Your task to perform on an android device: Search for seafood restaurants on Google Maps Image 0: 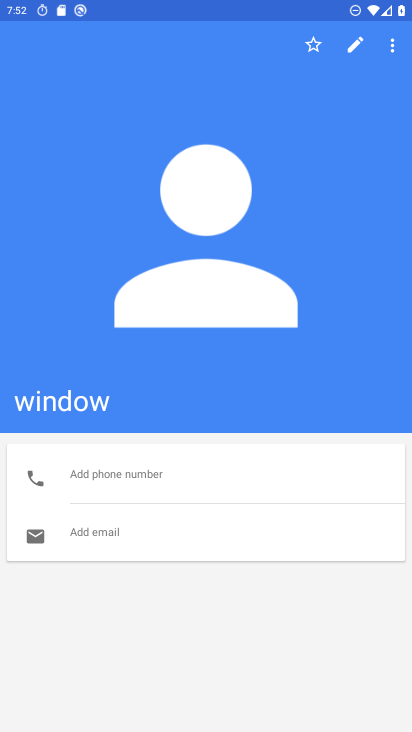
Step 0: press home button
Your task to perform on an android device: Search for seafood restaurants on Google Maps Image 1: 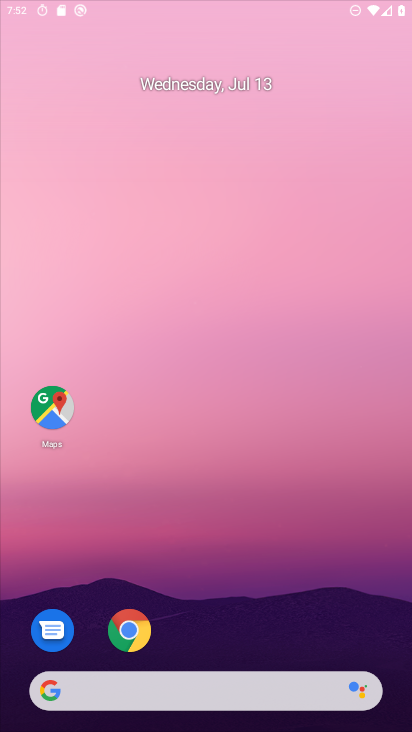
Step 1: drag from (399, 691) to (246, 5)
Your task to perform on an android device: Search for seafood restaurants on Google Maps Image 2: 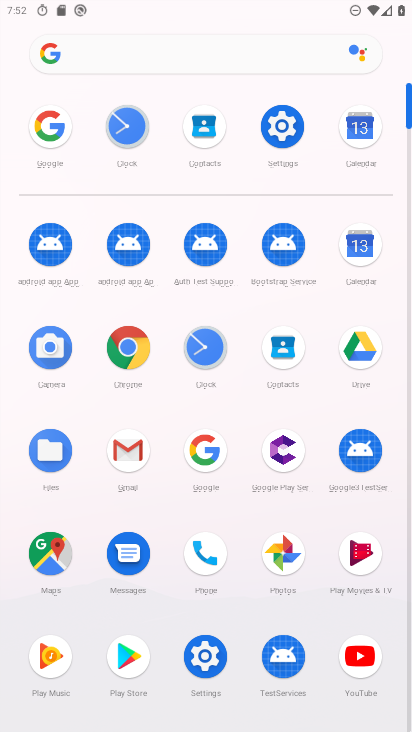
Step 2: click (39, 553)
Your task to perform on an android device: Search for seafood restaurants on Google Maps Image 3: 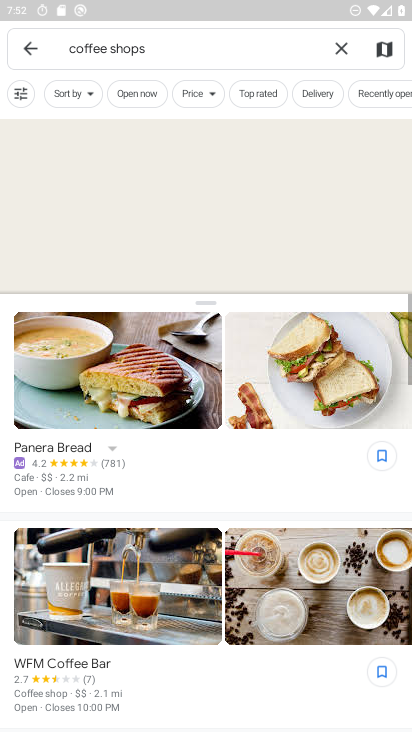
Step 3: click (347, 51)
Your task to perform on an android device: Search for seafood restaurants on Google Maps Image 4: 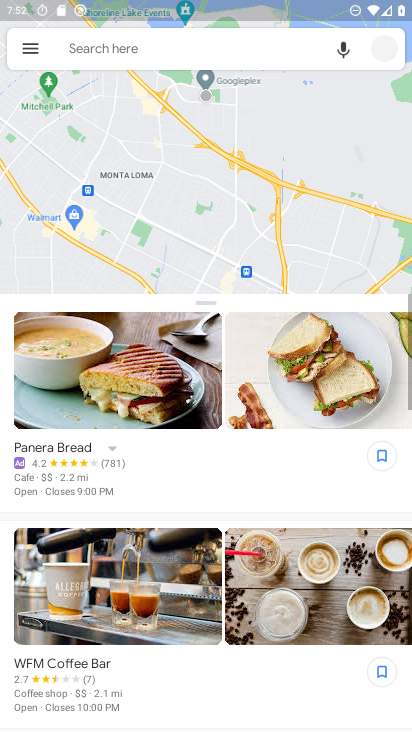
Step 4: click (170, 48)
Your task to perform on an android device: Search for seafood restaurants on Google Maps Image 5: 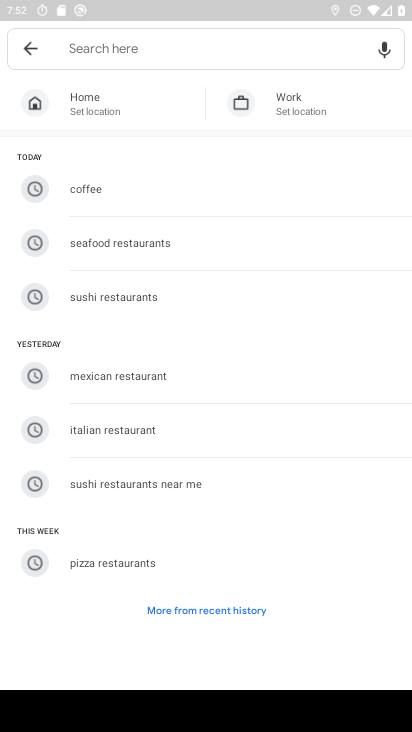
Step 5: drag from (113, 299) to (201, 228)
Your task to perform on an android device: Search for seafood restaurants on Google Maps Image 6: 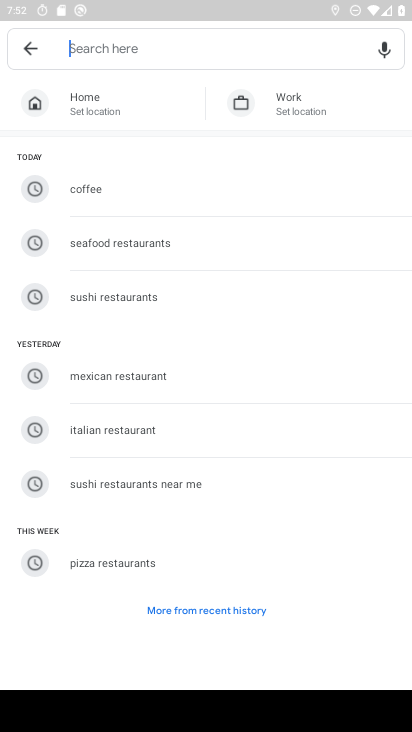
Step 6: click (120, 249)
Your task to perform on an android device: Search for seafood restaurants on Google Maps Image 7: 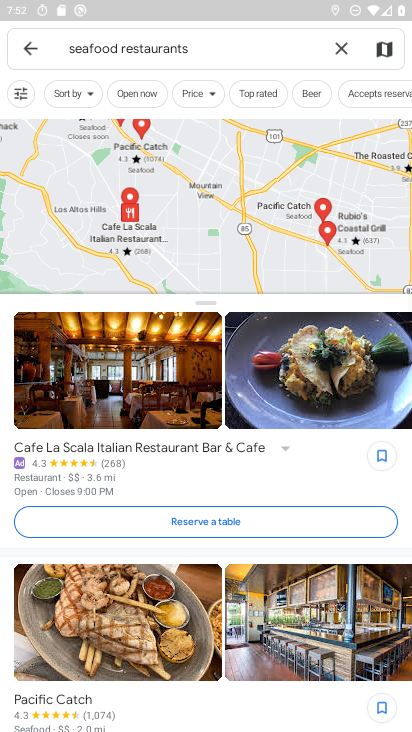
Step 7: task complete